Your task to perform on an android device: toggle wifi Image 0: 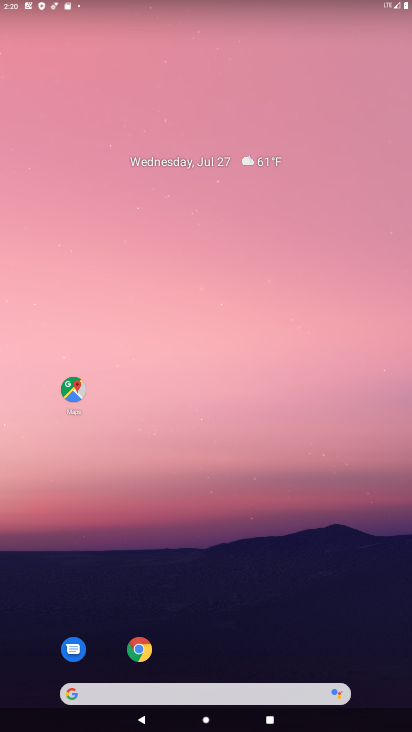
Step 0: drag from (214, 389) to (237, 54)
Your task to perform on an android device: toggle wifi Image 1: 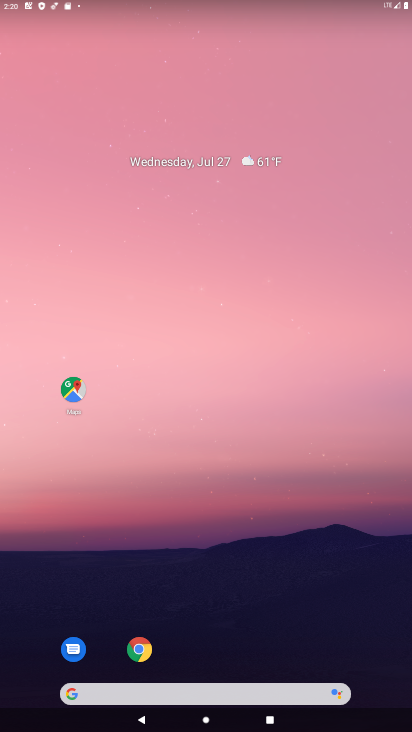
Step 1: drag from (202, 522) to (246, 64)
Your task to perform on an android device: toggle wifi Image 2: 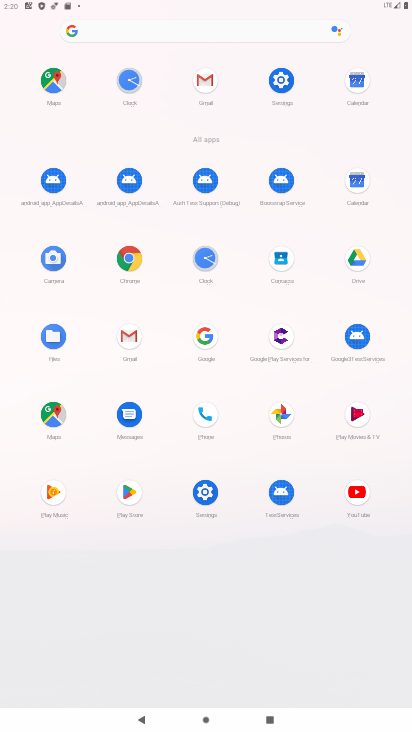
Step 2: click (280, 85)
Your task to perform on an android device: toggle wifi Image 3: 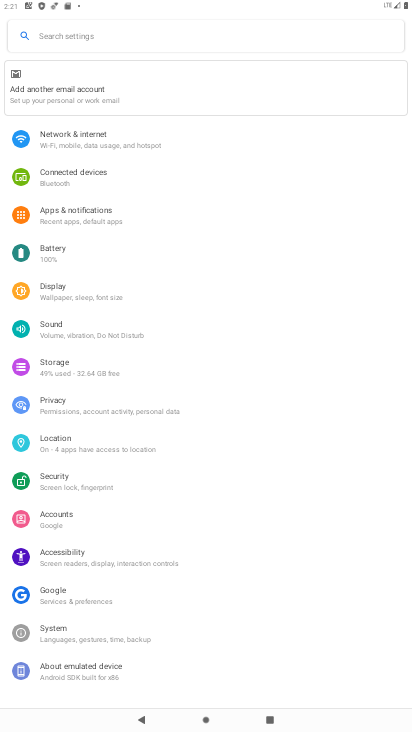
Step 3: click (111, 147)
Your task to perform on an android device: toggle wifi Image 4: 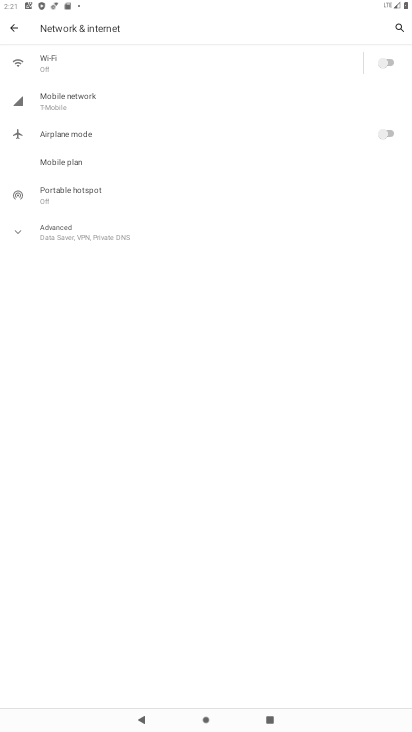
Step 4: click (63, 71)
Your task to perform on an android device: toggle wifi Image 5: 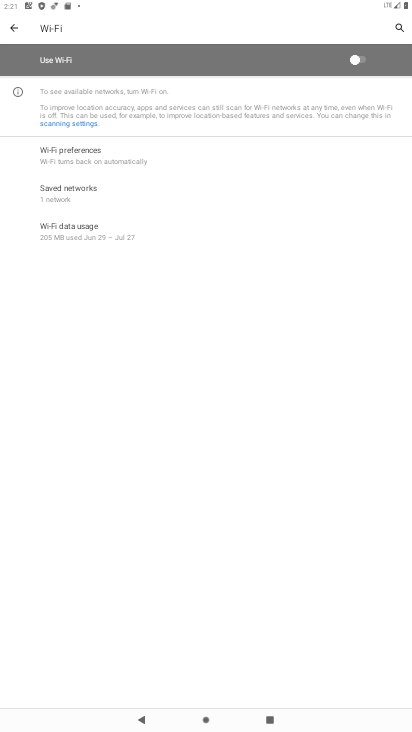
Step 5: task complete